Your task to perform on an android device: find which apps use the phone's location Image 0: 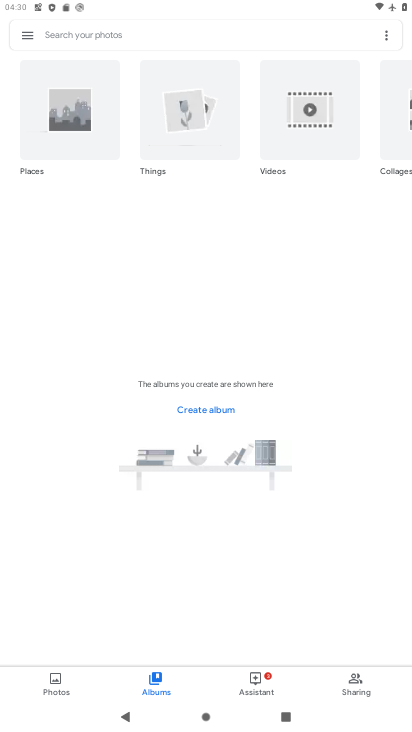
Step 0: press home button
Your task to perform on an android device: find which apps use the phone's location Image 1: 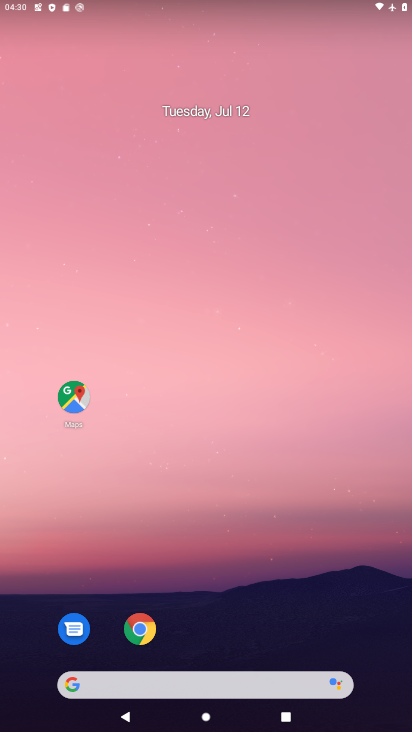
Step 1: drag from (256, 502) to (159, 142)
Your task to perform on an android device: find which apps use the phone's location Image 2: 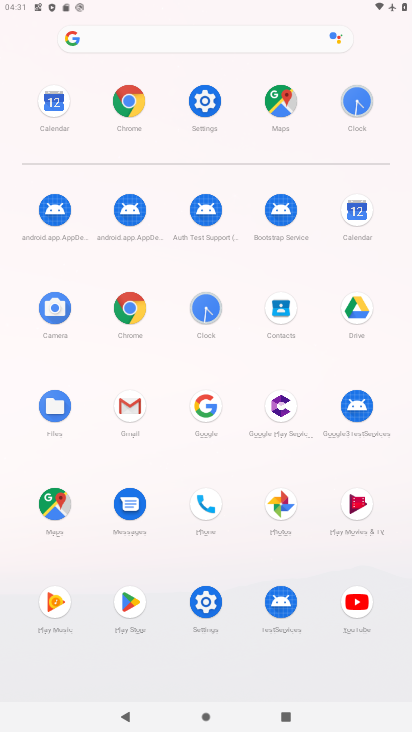
Step 2: click (203, 104)
Your task to perform on an android device: find which apps use the phone's location Image 3: 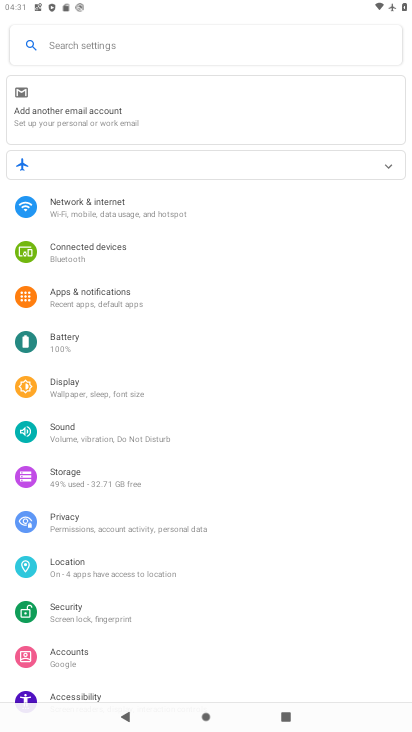
Step 3: click (118, 565)
Your task to perform on an android device: find which apps use the phone's location Image 4: 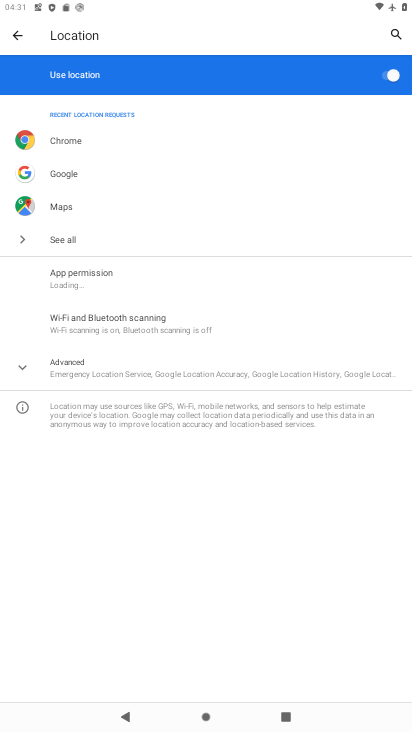
Step 4: click (95, 279)
Your task to perform on an android device: find which apps use the phone's location Image 5: 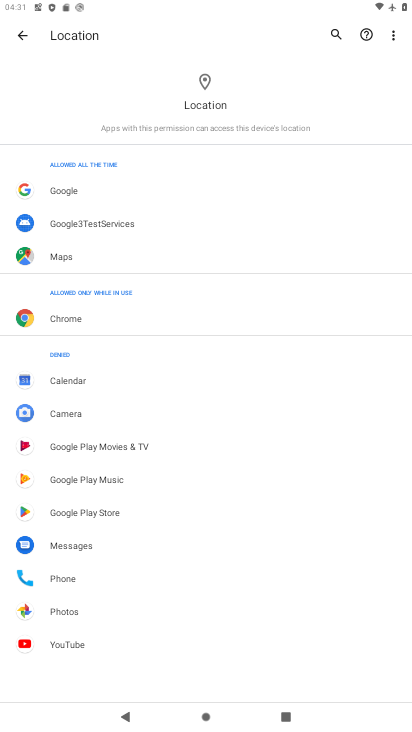
Step 5: task complete